Your task to perform on an android device: Open Wikipedia Image 0: 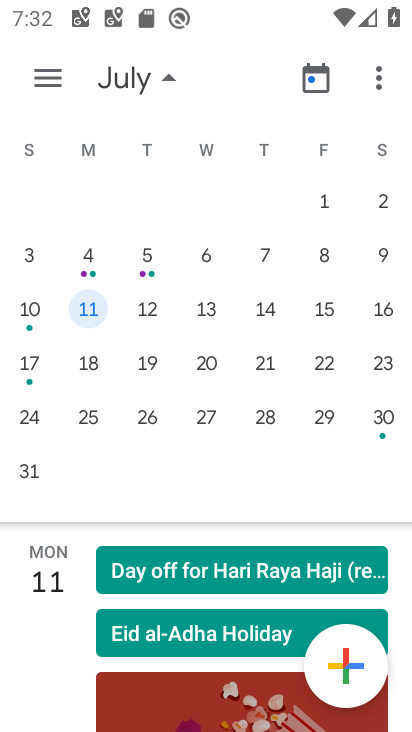
Step 0: press home button
Your task to perform on an android device: Open Wikipedia Image 1: 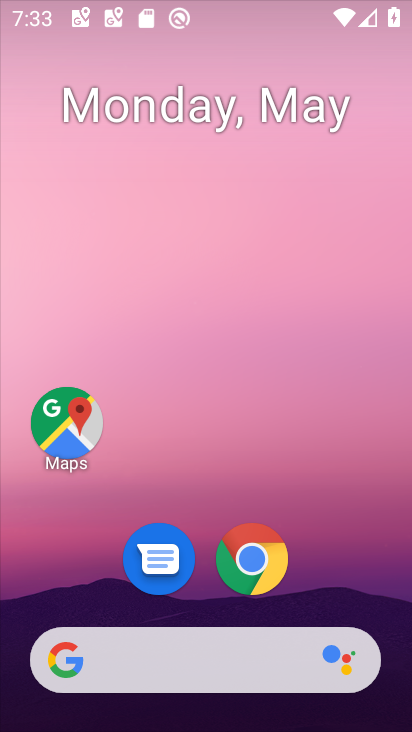
Step 1: drag from (384, 624) to (376, 66)
Your task to perform on an android device: Open Wikipedia Image 2: 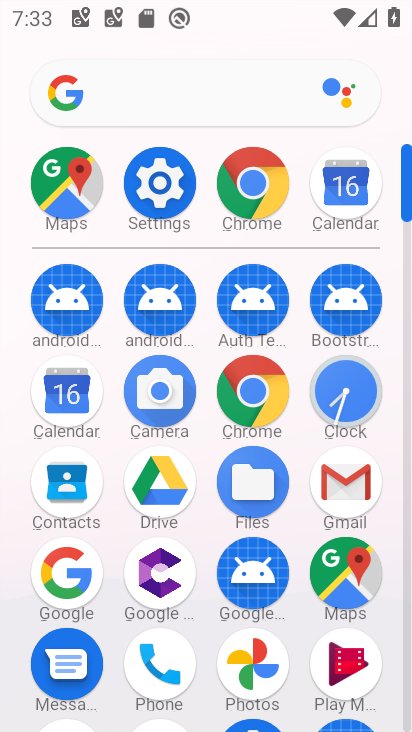
Step 2: click (260, 188)
Your task to perform on an android device: Open Wikipedia Image 3: 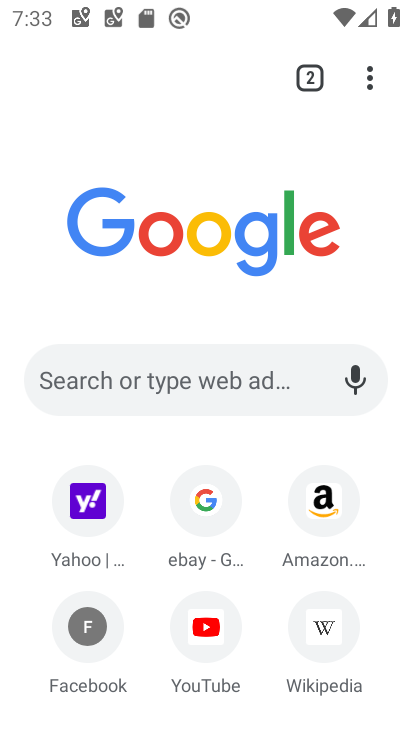
Step 3: click (342, 633)
Your task to perform on an android device: Open Wikipedia Image 4: 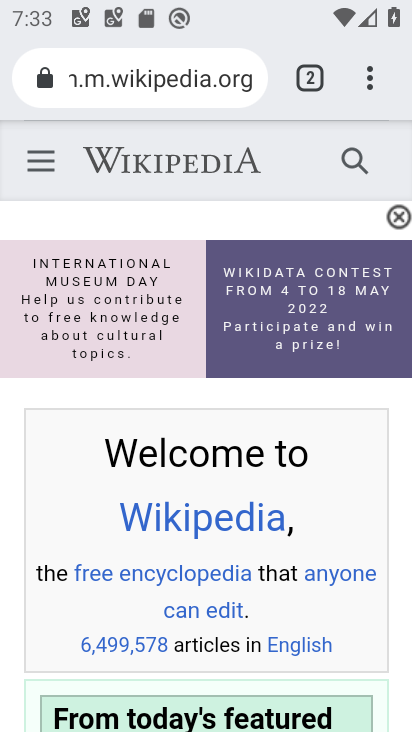
Step 4: task complete